Your task to perform on an android device: Open Google Chrome Image 0: 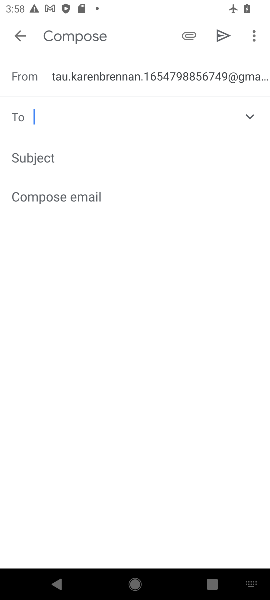
Step 0: press home button
Your task to perform on an android device: Open Google Chrome Image 1: 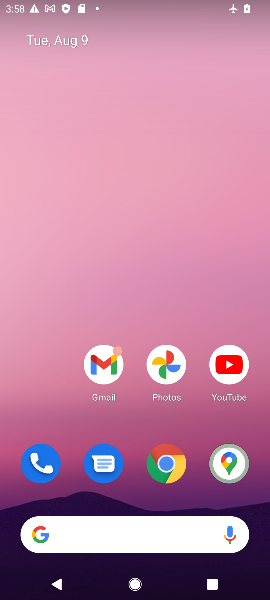
Step 1: click (172, 465)
Your task to perform on an android device: Open Google Chrome Image 2: 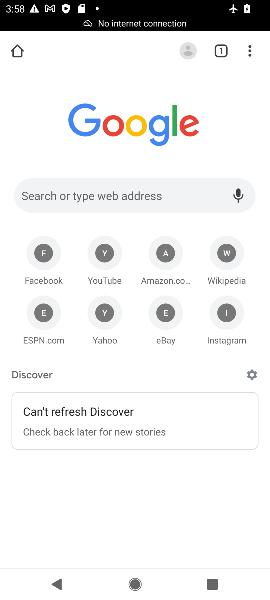
Step 2: task complete